Your task to perform on an android device: Open Google Image 0: 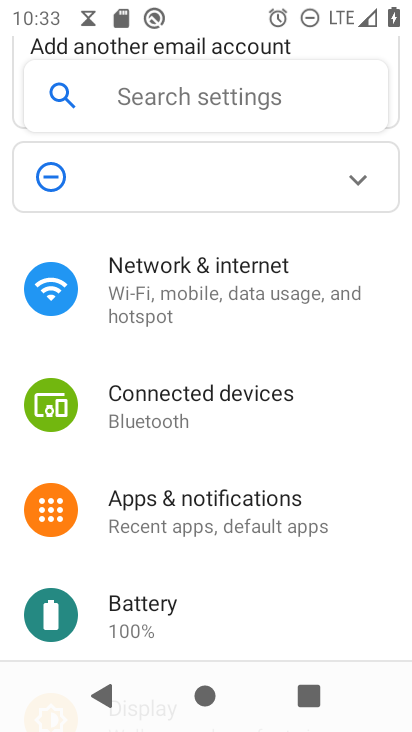
Step 0: press home button
Your task to perform on an android device: Open Google Image 1: 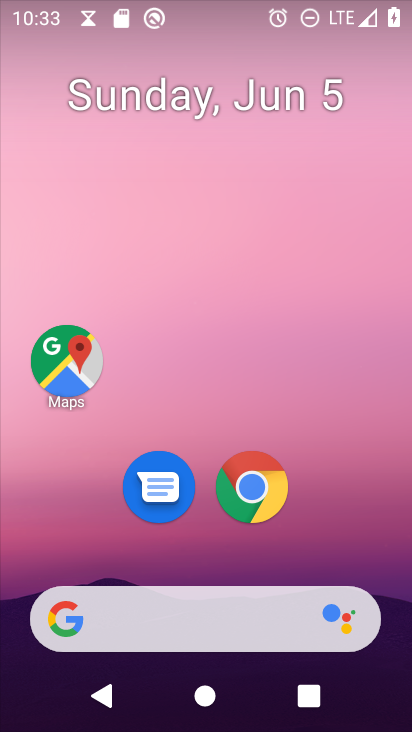
Step 1: drag from (171, 549) to (220, 121)
Your task to perform on an android device: Open Google Image 2: 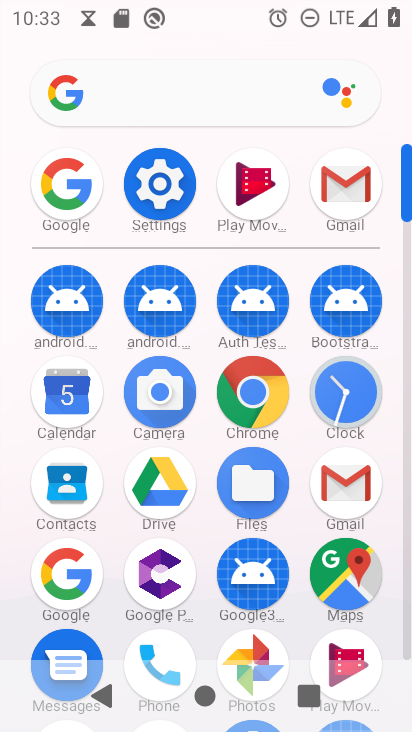
Step 2: click (68, 175)
Your task to perform on an android device: Open Google Image 3: 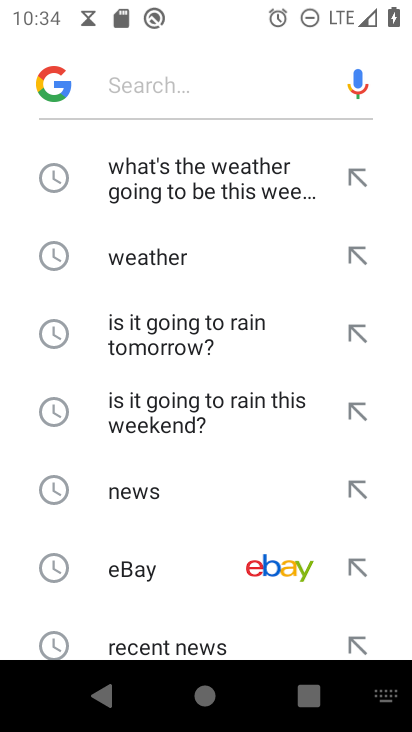
Step 3: task complete